Your task to perform on an android device: change your default location settings in chrome Image 0: 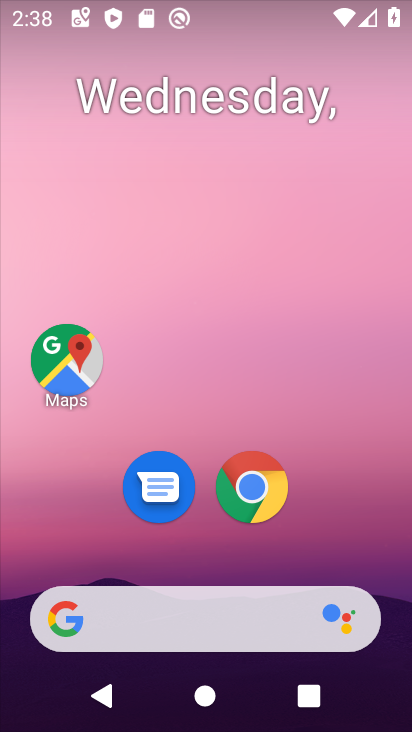
Step 0: click (375, 539)
Your task to perform on an android device: change your default location settings in chrome Image 1: 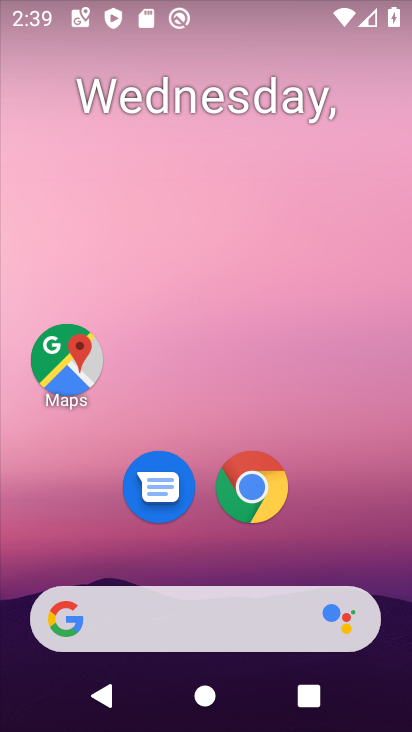
Step 1: drag from (375, 539) to (256, 125)
Your task to perform on an android device: change your default location settings in chrome Image 2: 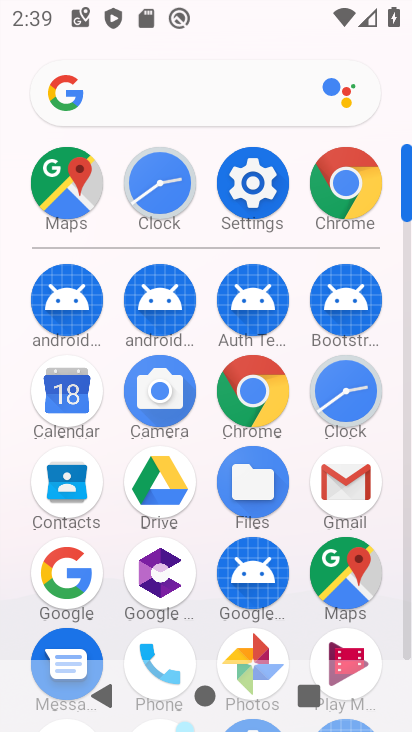
Step 2: click (342, 188)
Your task to perform on an android device: change your default location settings in chrome Image 3: 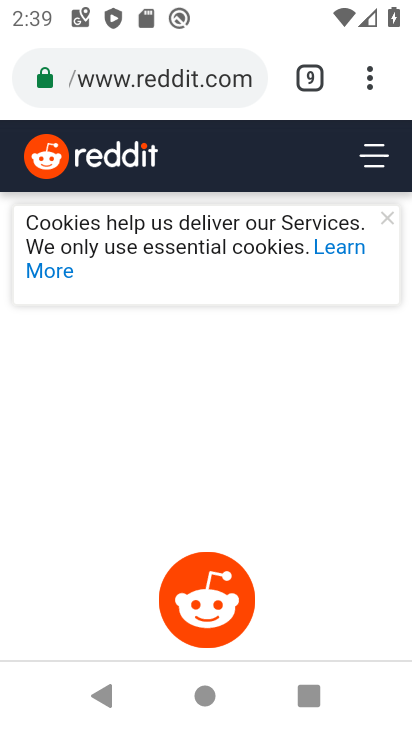
Step 3: click (375, 75)
Your task to perform on an android device: change your default location settings in chrome Image 4: 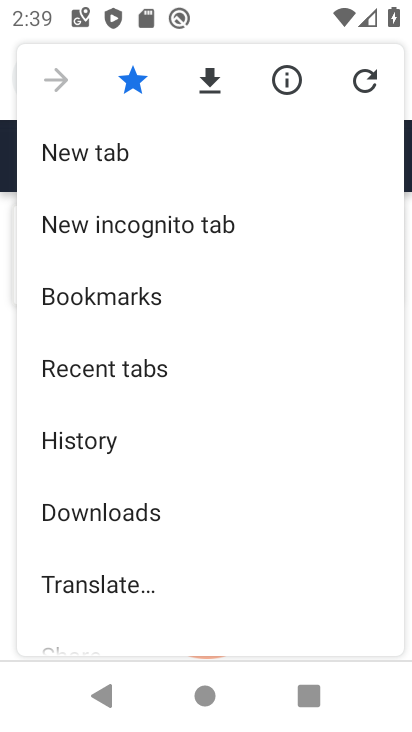
Step 4: drag from (223, 409) to (178, 149)
Your task to perform on an android device: change your default location settings in chrome Image 5: 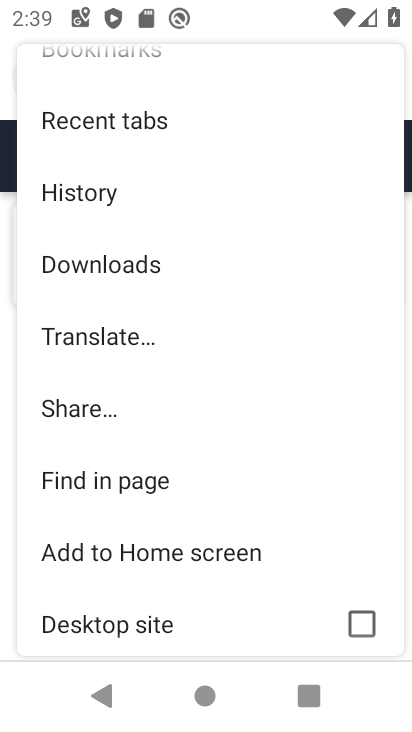
Step 5: drag from (208, 461) to (210, 123)
Your task to perform on an android device: change your default location settings in chrome Image 6: 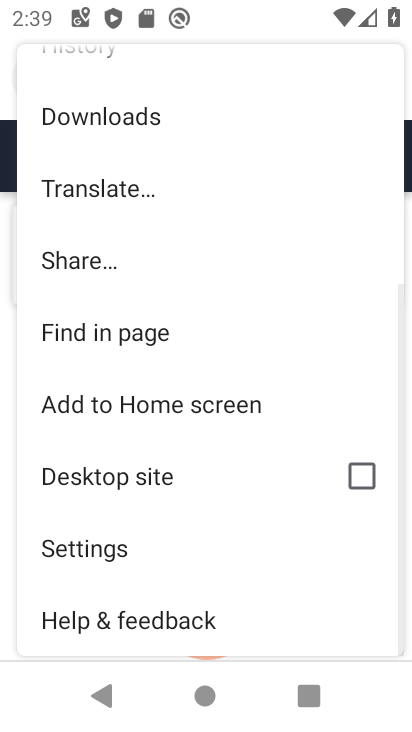
Step 6: click (97, 534)
Your task to perform on an android device: change your default location settings in chrome Image 7: 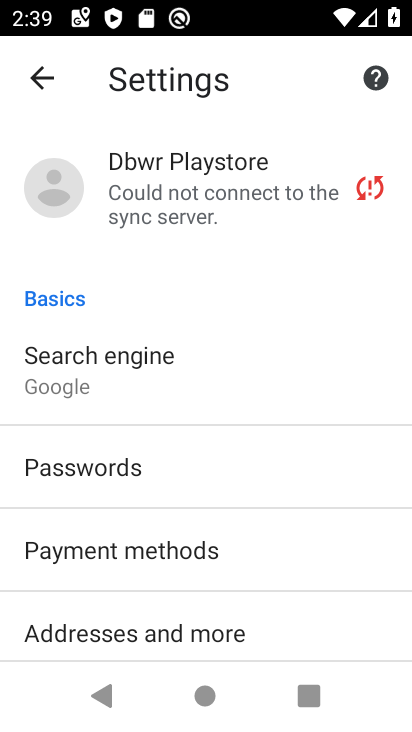
Step 7: drag from (260, 506) to (257, 146)
Your task to perform on an android device: change your default location settings in chrome Image 8: 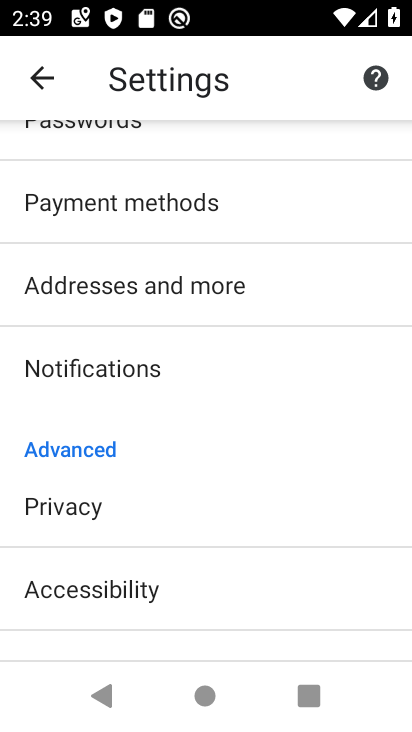
Step 8: drag from (244, 451) to (244, 176)
Your task to perform on an android device: change your default location settings in chrome Image 9: 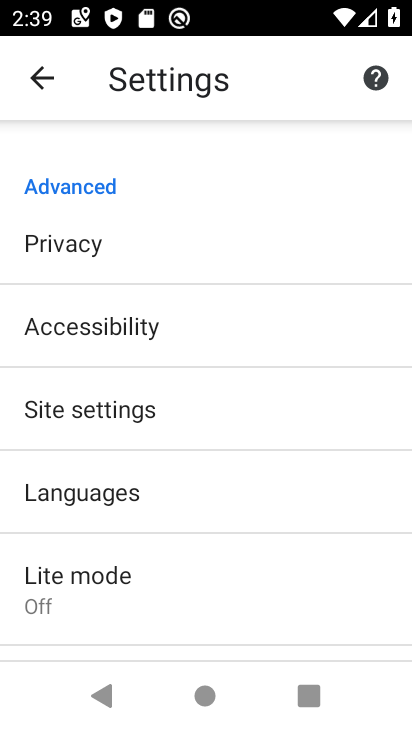
Step 9: click (126, 399)
Your task to perform on an android device: change your default location settings in chrome Image 10: 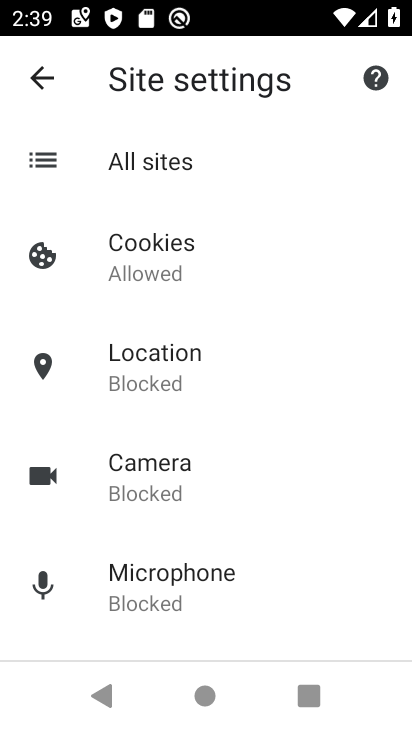
Step 10: click (149, 368)
Your task to perform on an android device: change your default location settings in chrome Image 11: 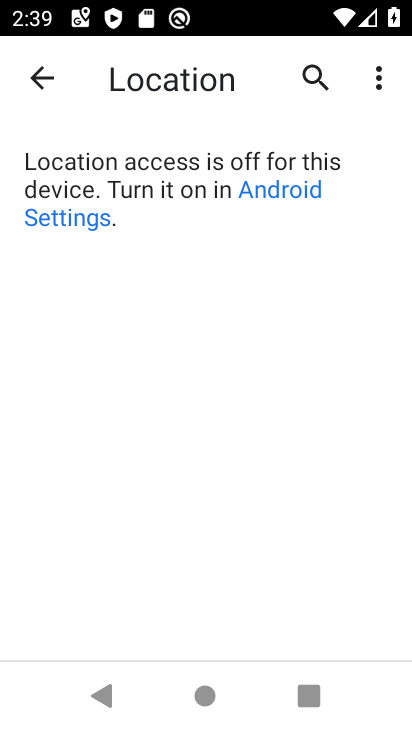
Step 11: click (261, 177)
Your task to perform on an android device: change your default location settings in chrome Image 12: 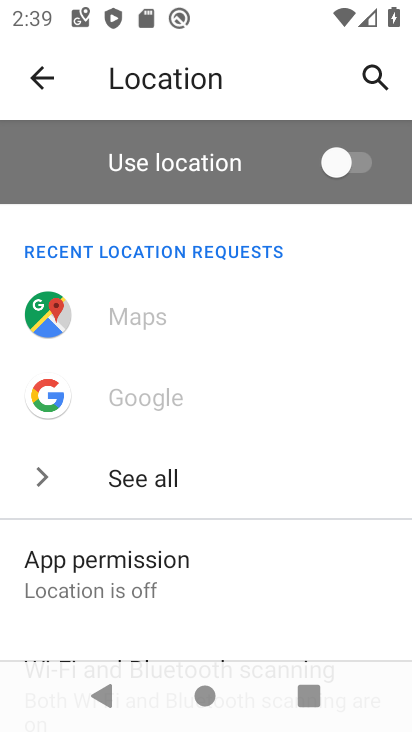
Step 12: click (331, 164)
Your task to perform on an android device: change your default location settings in chrome Image 13: 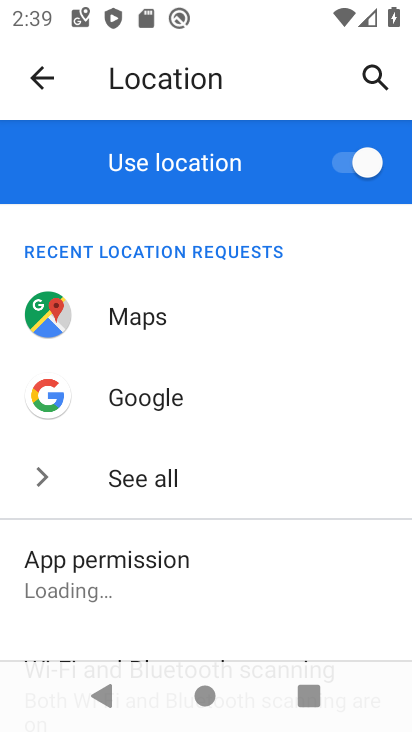
Step 13: task complete